Your task to perform on an android device: check android version Image 0: 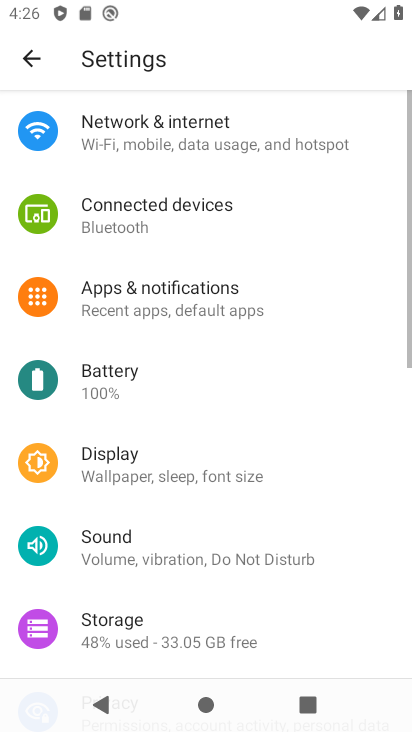
Step 0: drag from (206, 513) to (214, 176)
Your task to perform on an android device: check android version Image 1: 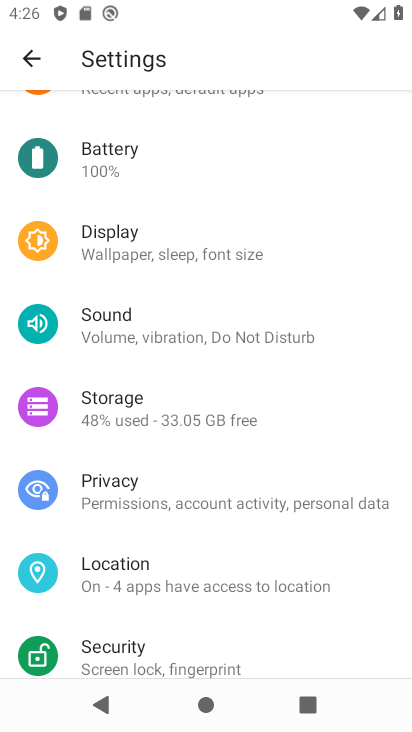
Step 1: drag from (186, 591) to (188, 236)
Your task to perform on an android device: check android version Image 2: 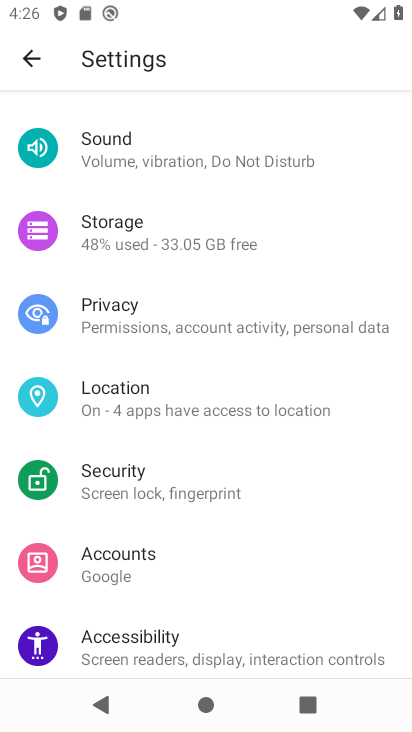
Step 2: drag from (174, 621) to (181, 361)
Your task to perform on an android device: check android version Image 3: 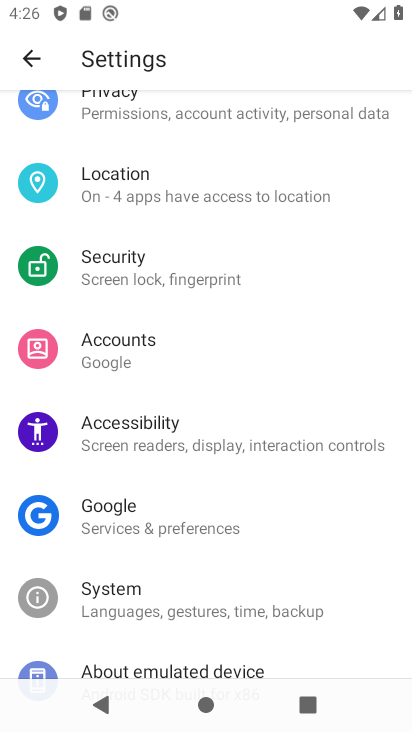
Step 3: drag from (176, 623) to (184, 320)
Your task to perform on an android device: check android version Image 4: 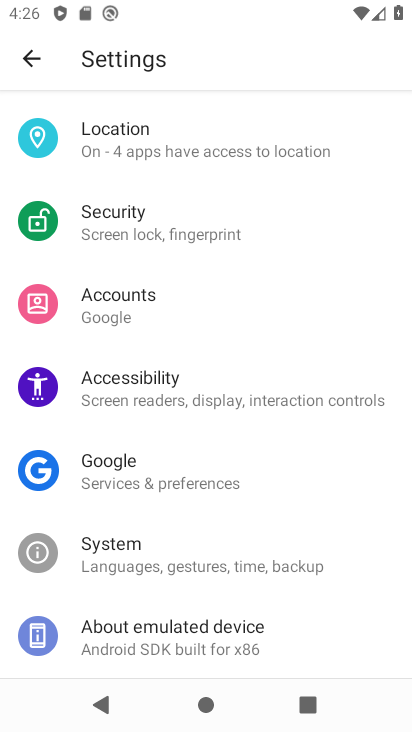
Step 4: click (165, 633)
Your task to perform on an android device: check android version Image 5: 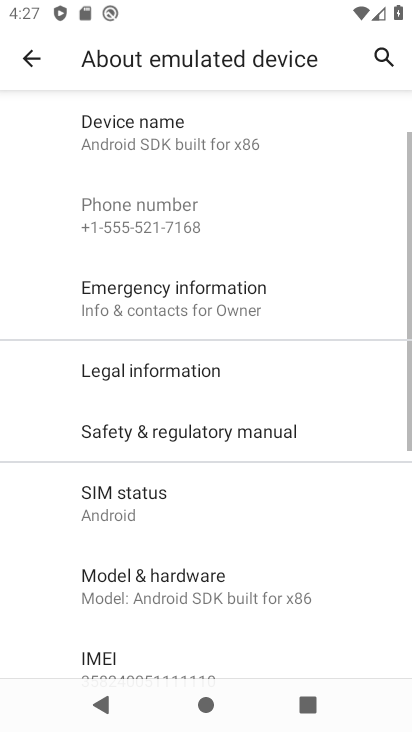
Step 5: drag from (176, 621) to (186, 375)
Your task to perform on an android device: check android version Image 6: 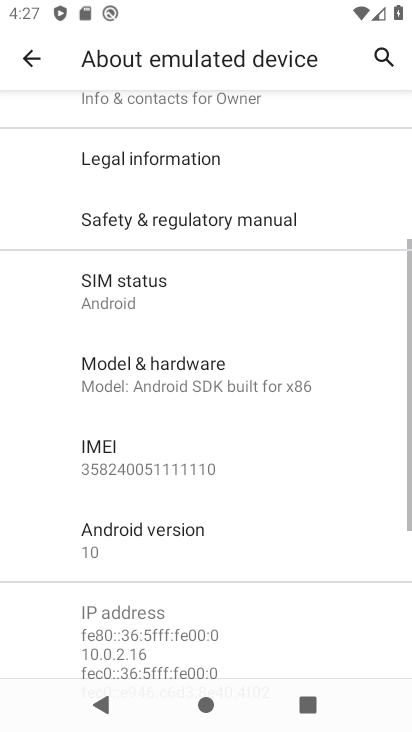
Step 6: click (185, 555)
Your task to perform on an android device: check android version Image 7: 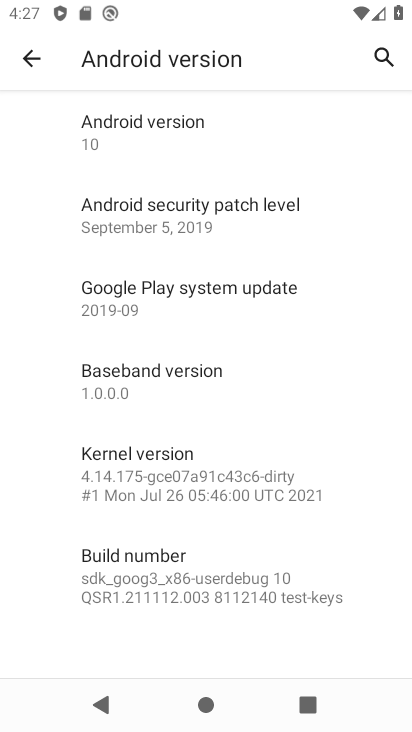
Step 7: task complete